Your task to perform on an android device: turn off translation in the chrome app Image 0: 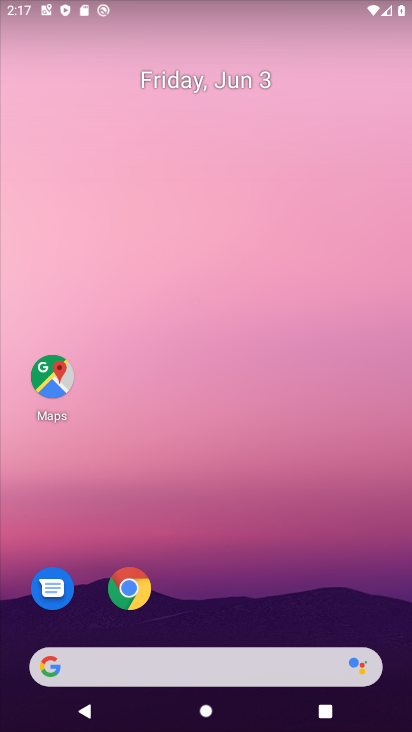
Step 0: drag from (181, 589) to (258, 173)
Your task to perform on an android device: turn off translation in the chrome app Image 1: 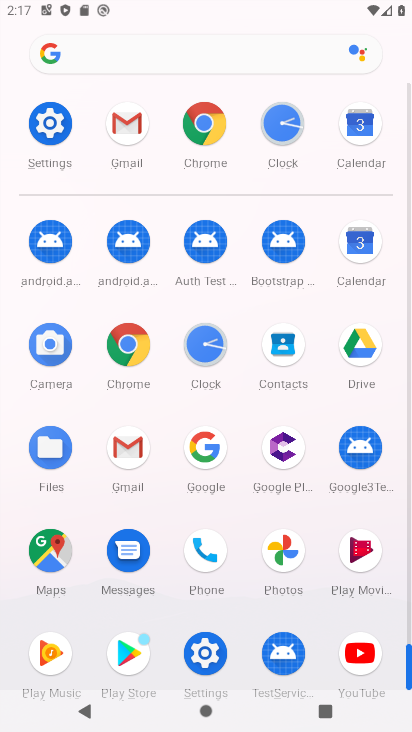
Step 1: click (128, 366)
Your task to perform on an android device: turn off translation in the chrome app Image 2: 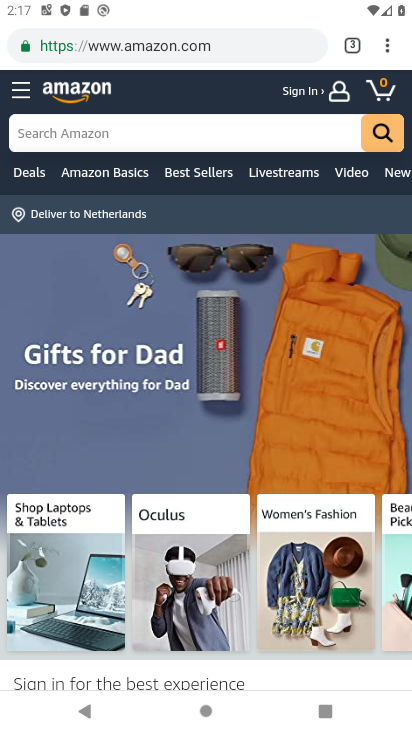
Step 2: click (389, 52)
Your task to perform on an android device: turn off translation in the chrome app Image 3: 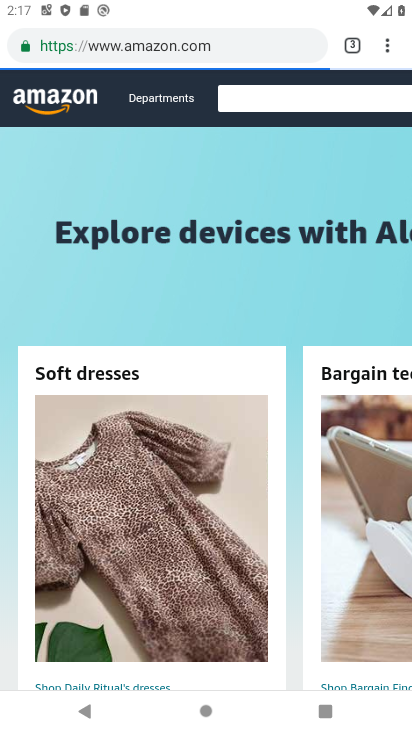
Step 3: click (386, 47)
Your task to perform on an android device: turn off translation in the chrome app Image 4: 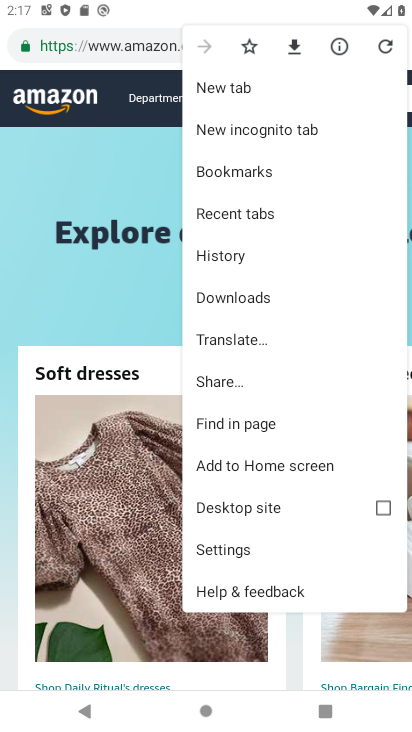
Step 4: click (264, 550)
Your task to perform on an android device: turn off translation in the chrome app Image 5: 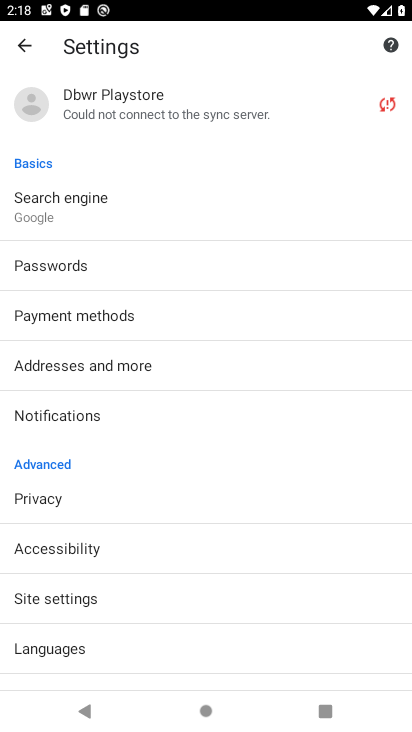
Step 5: drag from (105, 615) to (135, 413)
Your task to perform on an android device: turn off translation in the chrome app Image 6: 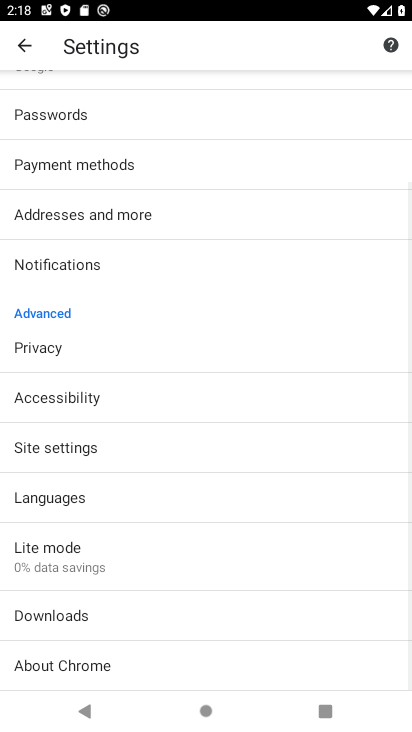
Step 6: click (92, 502)
Your task to perform on an android device: turn off translation in the chrome app Image 7: 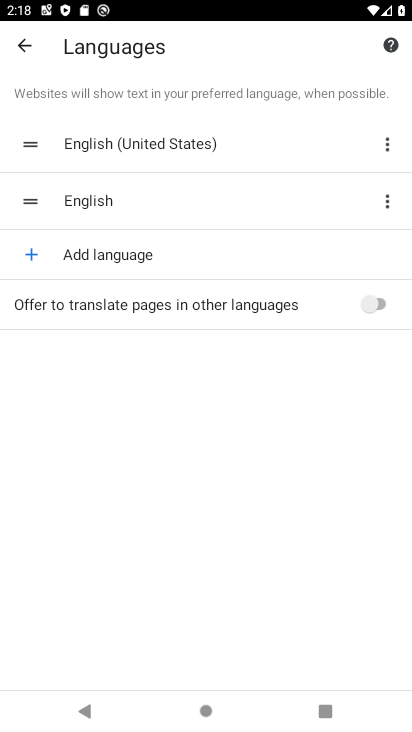
Step 7: task complete